Your task to perform on an android device: Open CNN.com Image 0: 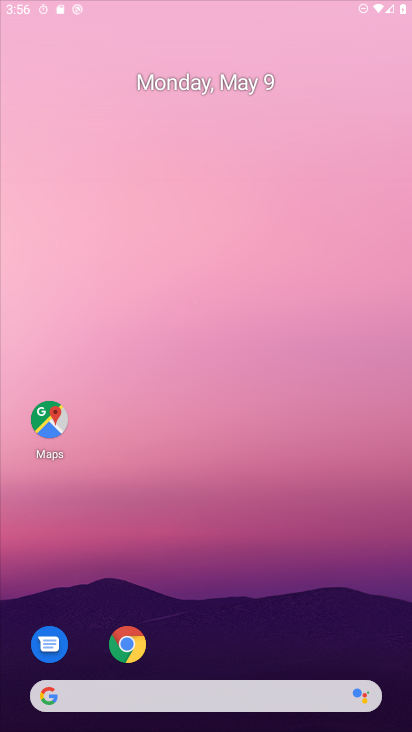
Step 0: click (217, 49)
Your task to perform on an android device: Open CNN.com Image 1: 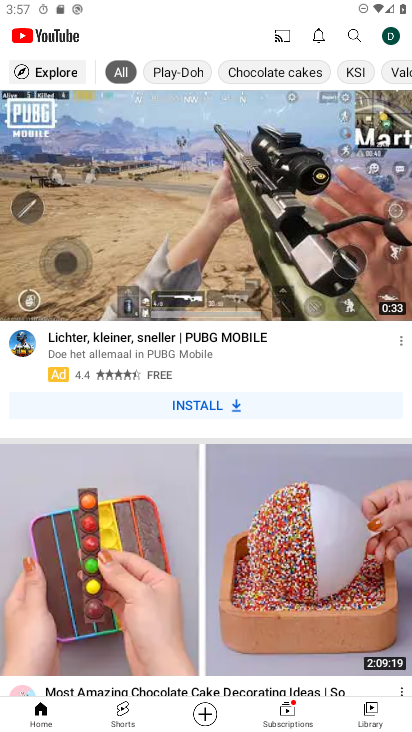
Step 1: press home button
Your task to perform on an android device: Open CNN.com Image 2: 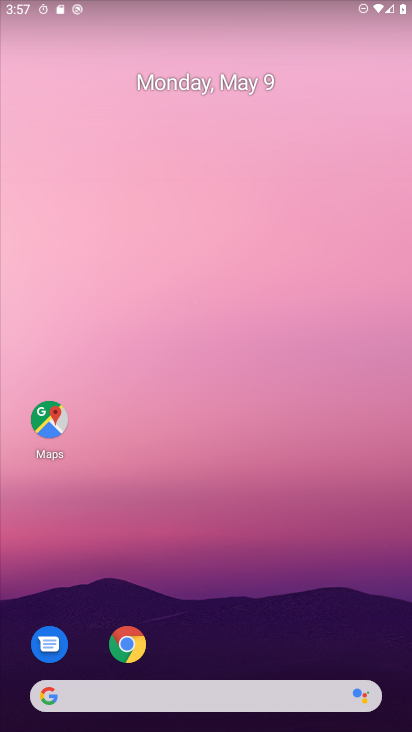
Step 2: drag from (215, 396) to (199, 124)
Your task to perform on an android device: Open CNN.com Image 3: 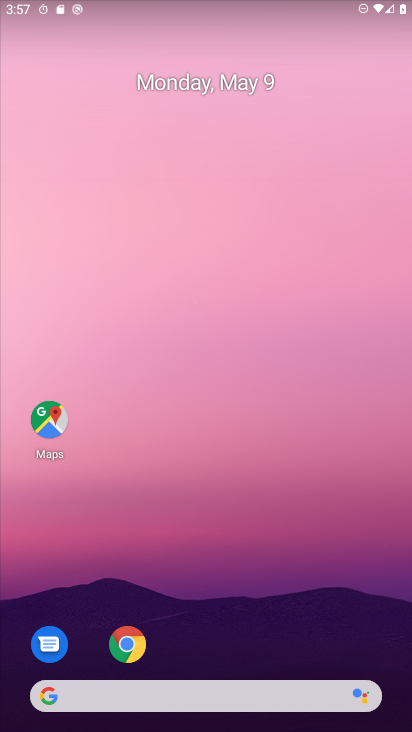
Step 3: drag from (248, 620) to (234, 48)
Your task to perform on an android device: Open CNN.com Image 4: 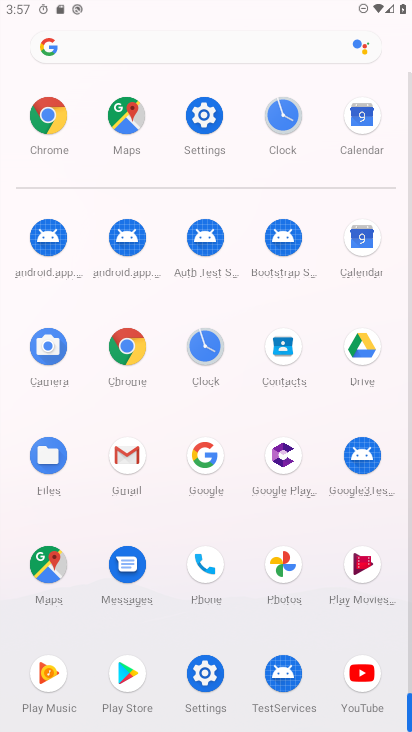
Step 4: click (207, 694)
Your task to perform on an android device: Open CNN.com Image 5: 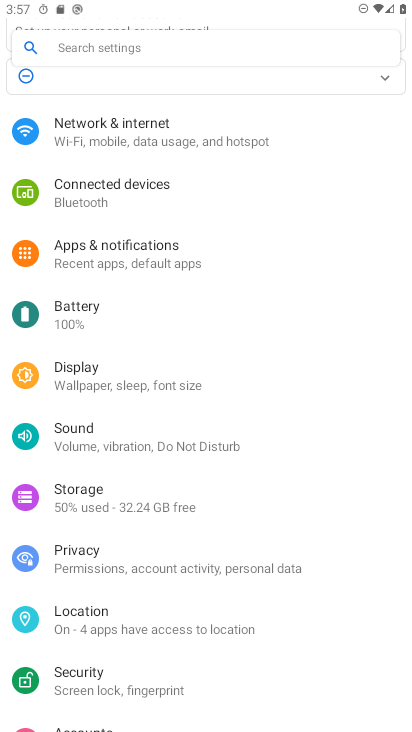
Step 5: click (141, 133)
Your task to perform on an android device: Open CNN.com Image 6: 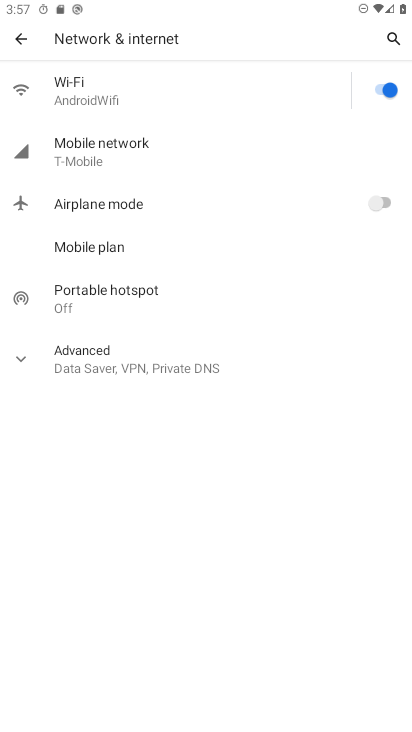
Step 6: task complete